Your task to perform on an android device: Open the calendar app, open the side menu, and click the "Day" option Image 0: 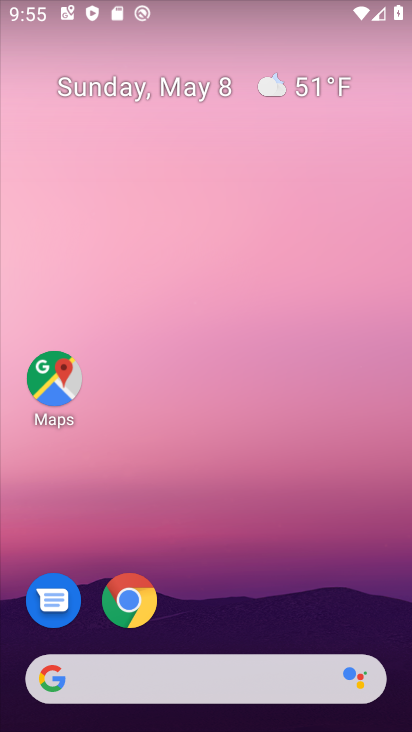
Step 0: drag from (247, 575) to (234, 32)
Your task to perform on an android device: Open the calendar app, open the side menu, and click the "Day" option Image 1: 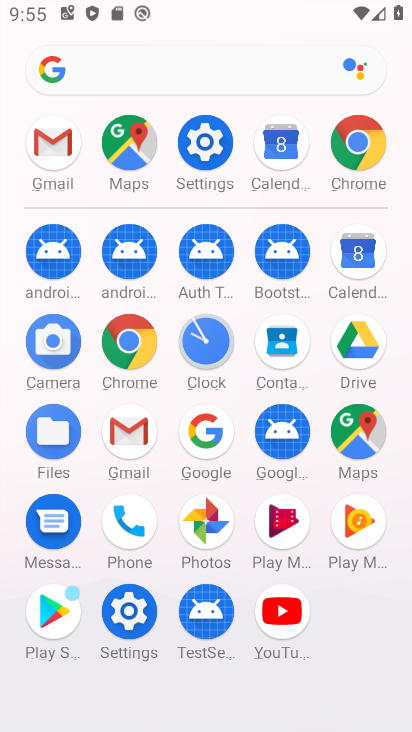
Step 1: click (356, 248)
Your task to perform on an android device: Open the calendar app, open the side menu, and click the "Day" option Image 2: 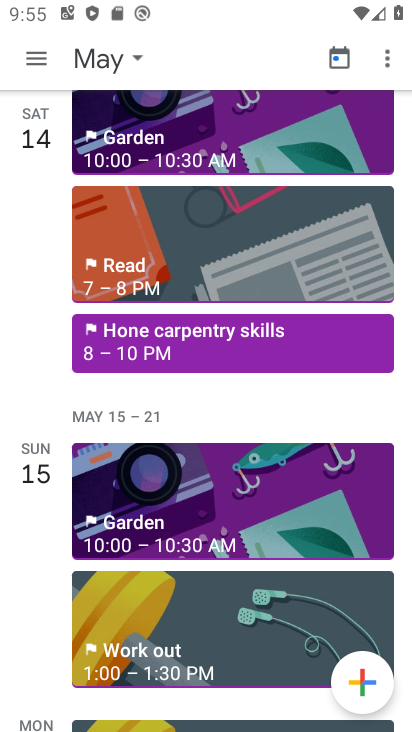
Step 2: click (28, 50)
Your task to perform on an android device: Open the calendar app, open the side menu, and click the "Day" option Image 3: 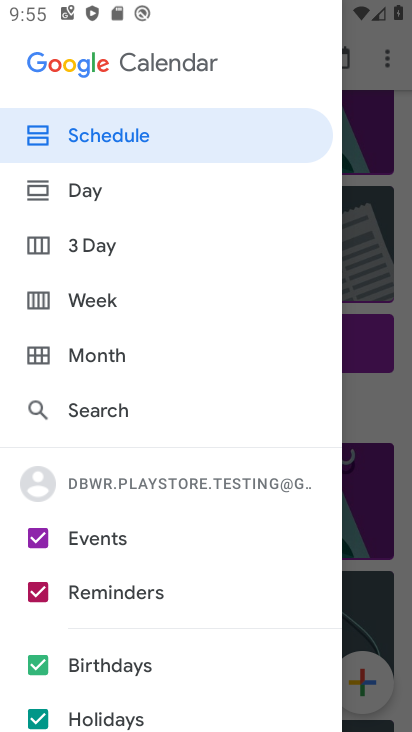
Step 3: click (115, 188)
Your task to perform on an android device: Open the calendar app, open the side menu, and click the "Day" option Image 4: 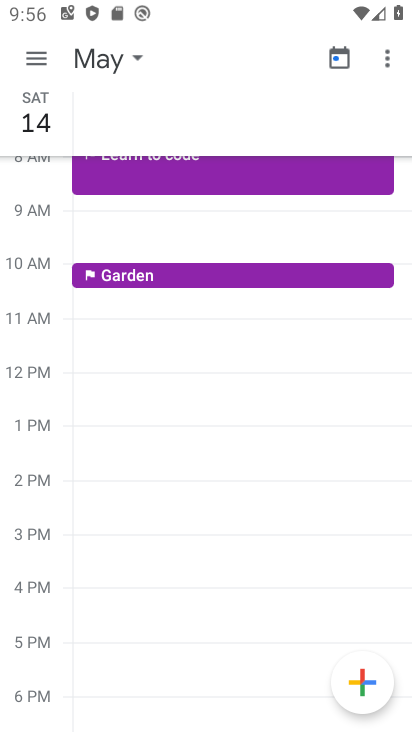
Step 4: task complete